Your task to perform on an android device: Open ESPN.com Image 0: 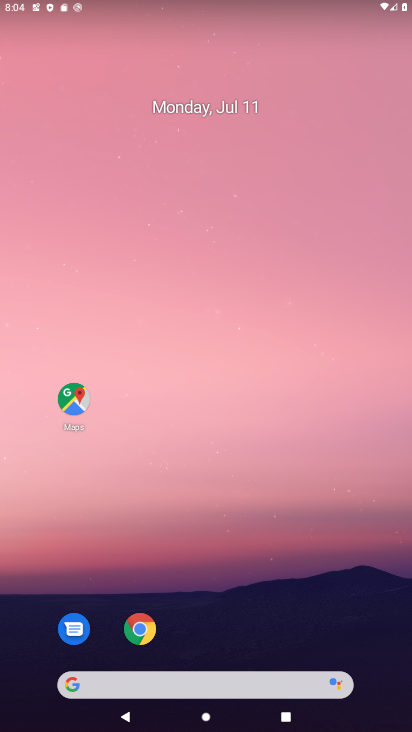
Step 0: drag from (220, 642) to (308, 101)
Your task to perform on an android device: Open ESPN.com Image 1: 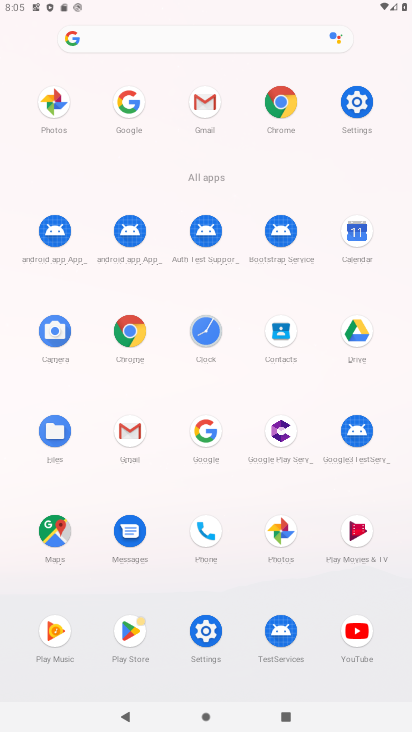
Step 1: click (127, 104)
Your task to perform on an android device: Open ESPN.com Image 2: 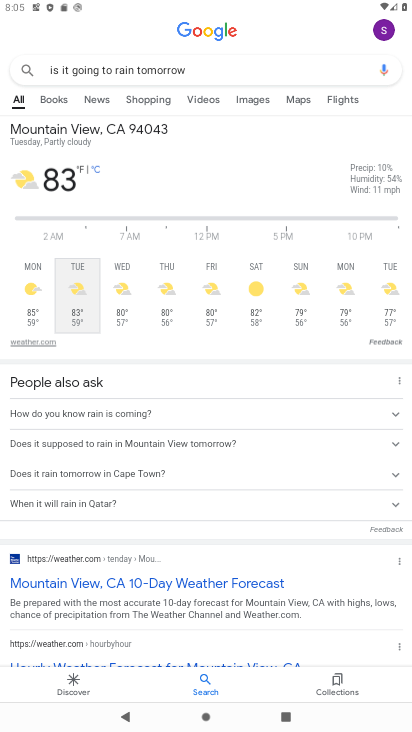
Step 2: click (257, 61)
Your task to perform on an android device: Open ESPN.com Image 3: 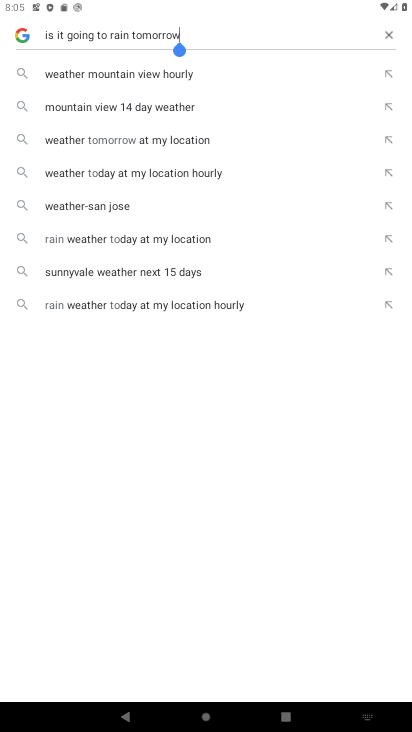
Step 3: click (386, 33)
Your task to perform on an android device: Open ESPN.com Image 4: 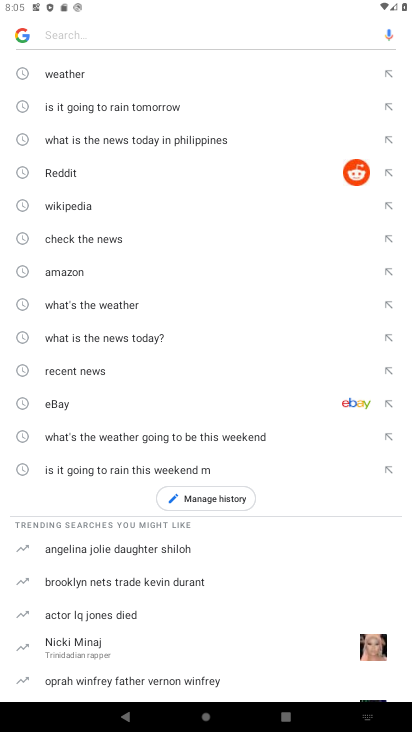
Step 4: type "espn.com"
Your task to perform on an android device: Open ESPN.com Image 5: 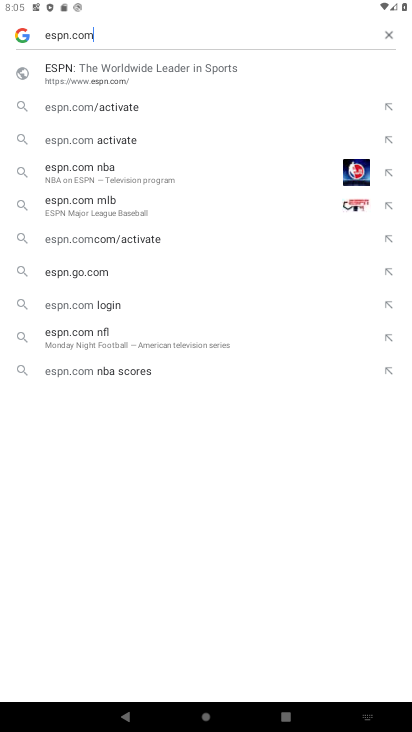
Step 5: click (102, 62)
Your task to perform on an android device: Open ESPN.com Image 6: 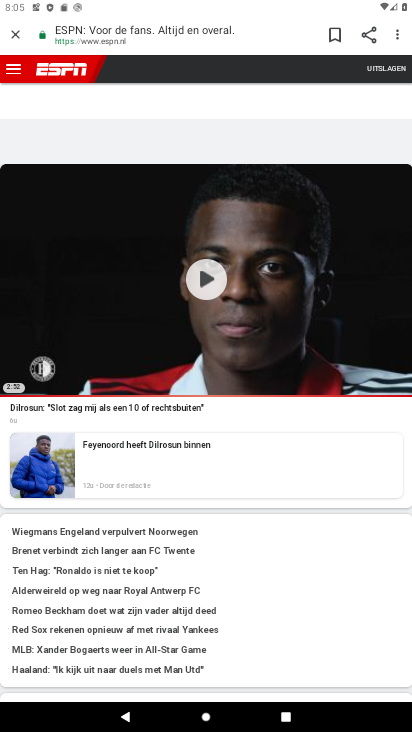
Step 6: task complete